Your task to perform on an android device: Go to Amazon Image 0: 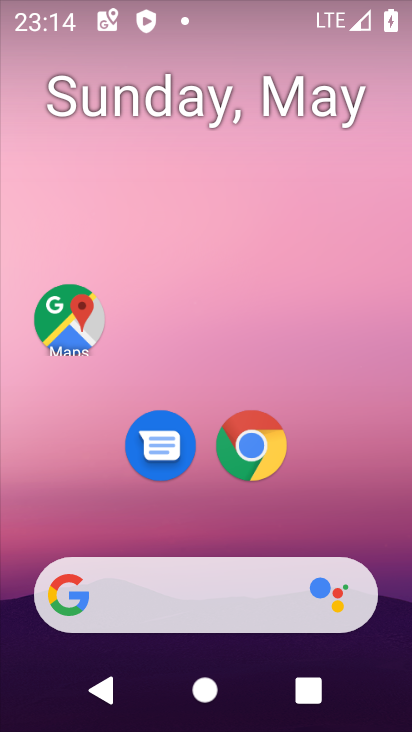
Step 0: drag from (174, 330) to (175, 46)
Your task to perform on an android device: Go to Amazon Image 1: 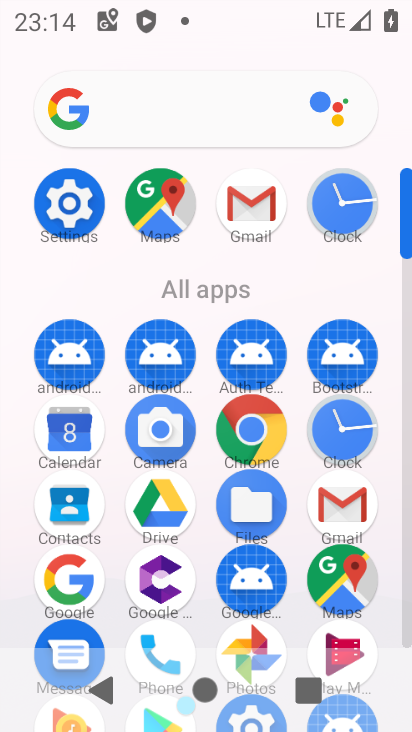
Step 1: drag from (204, 568) to (197, 467)
Your task to perform on an android device: Go to Amazon Image 2: 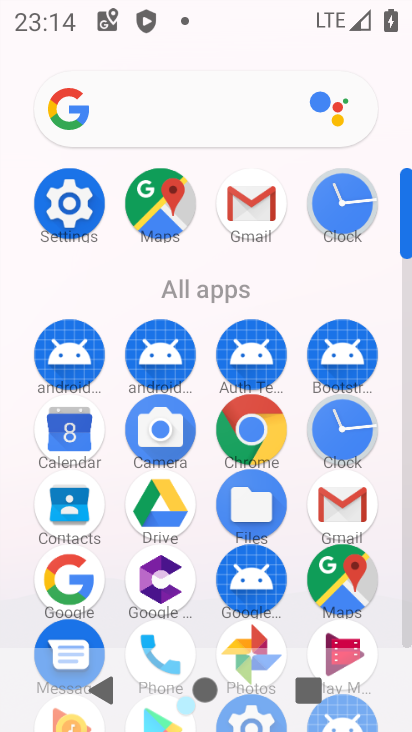
Step 2: click (260, 426)
Your task to perform on an android device: Go to Amazon Image 3: 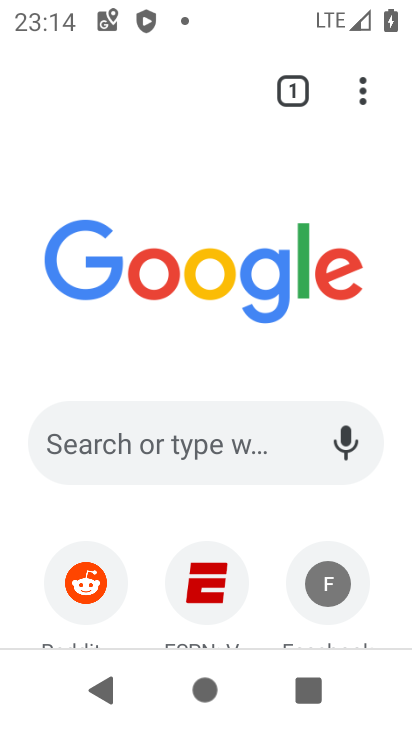
Step 3: drag from (225, 525) to (218, 192)
Your task to perform on an android device: Go to Amazon Image 4: 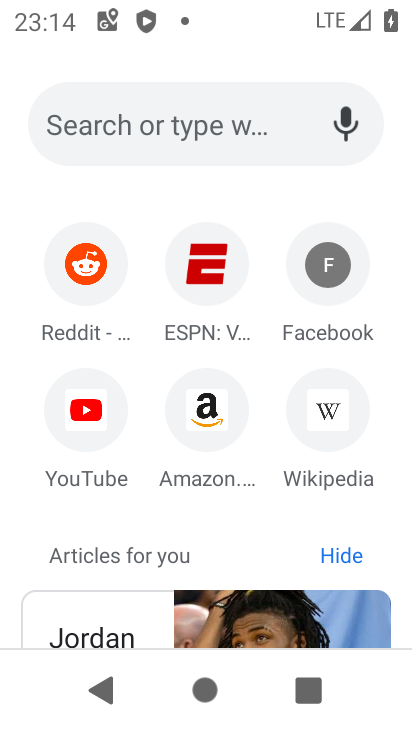
Step 4: click (204, 406)
Your task to perform on an android device: Go to Amazon Image 5: 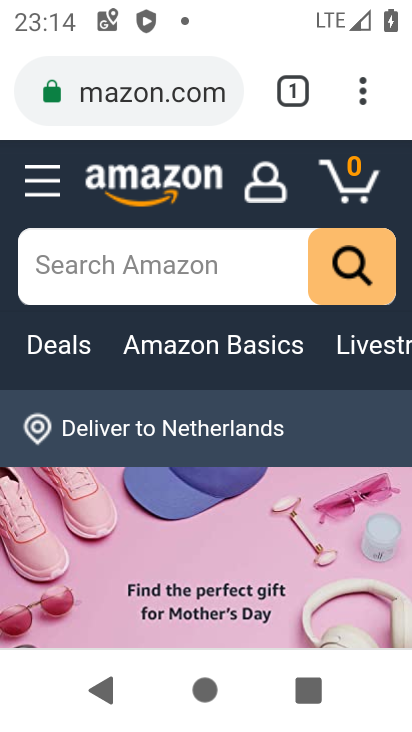
Step 5: task complete